Your task to perform on an android device: move an email to a new category in the gmail app Image 0: 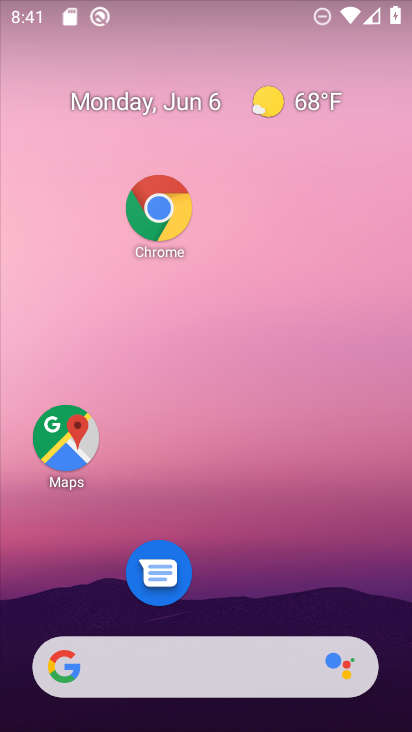
Step 0: drag from (284, 596) to (202, 111)
Your task to perform on an android device: move an email to a new category in the gmail app Image 1: 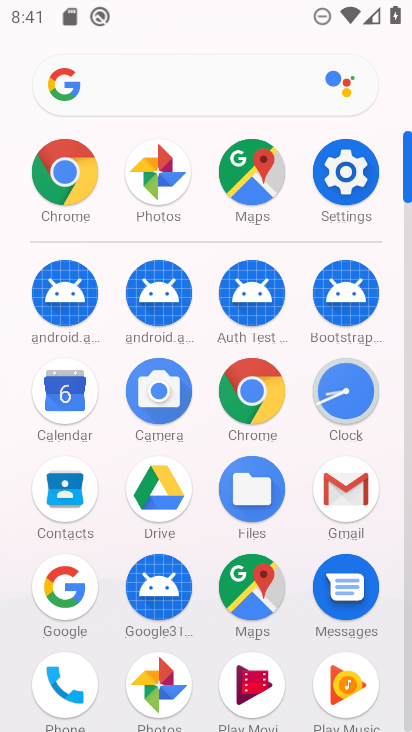
Step 1: click (355, 503)
Your task to perform on an android device: move an email to a new category in the gmail app Image 2: 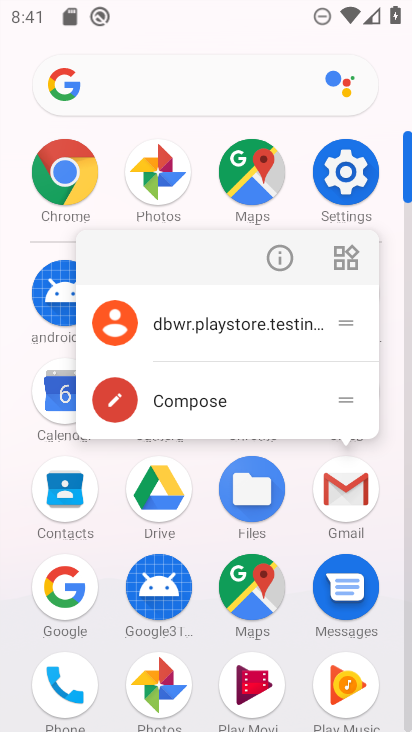
Step 2: click (240, 321)
Your task to perform on an android device: move an email to a new category in the gmail app Image 3: 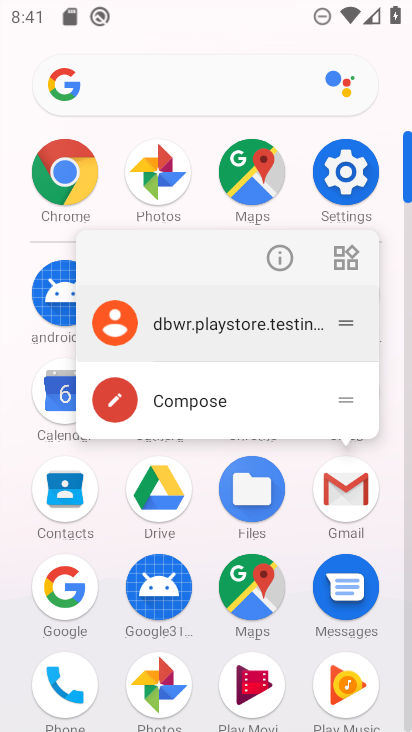
Step 3: click (240, 321)
Your task to perform on an android device: move an email to a new category in the gmail app Image 4: 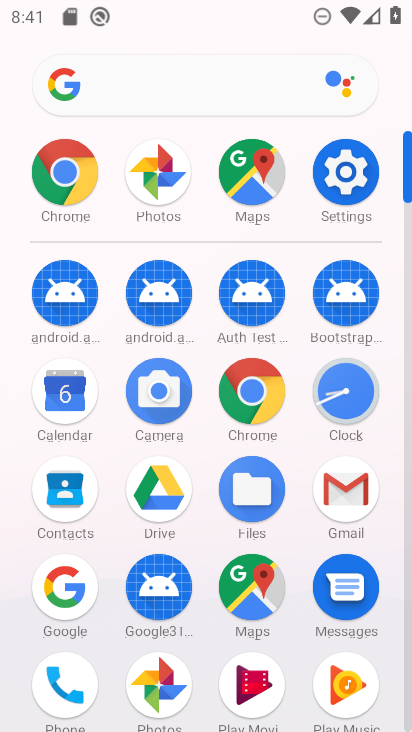
Step 4: click (242, 322)
Your task to perform on an android device: move an email to a new category in the gmail app Image 5: 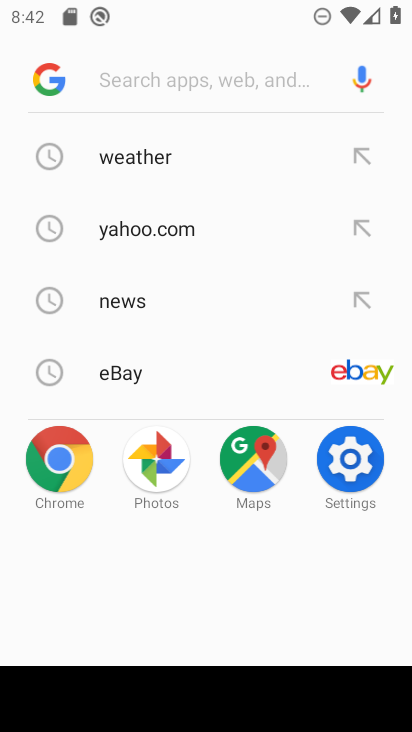
Step 5: press back button
Your task to perform on an android device: move an email to a new category in the gmail app Image 6: 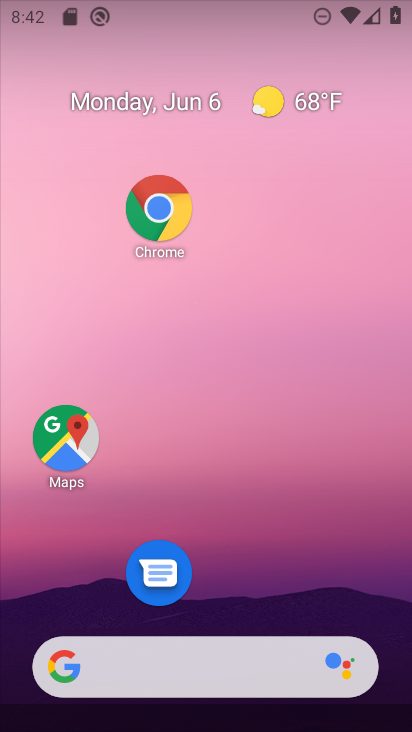
Step 6: press back button
Your task to perform on an android device: move an email to a new category in the gmail app Image 7: 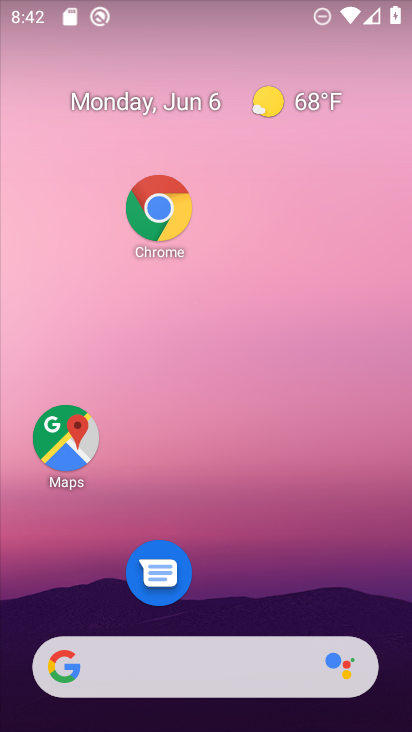
Step 7: drag from (274, 692) to (204, 19)
Your task to perform on an android device: move an email to a new category in the gmail app Image 8: 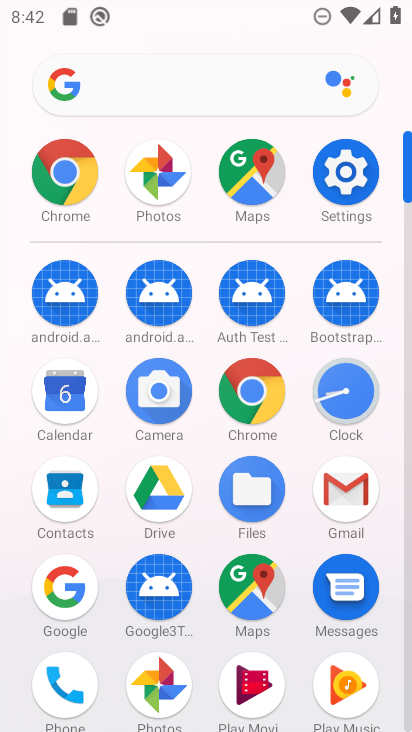
Step 8: click (335, 495)
Your task to perform on an android device: move an email to a new category in the gmail app Image 9: 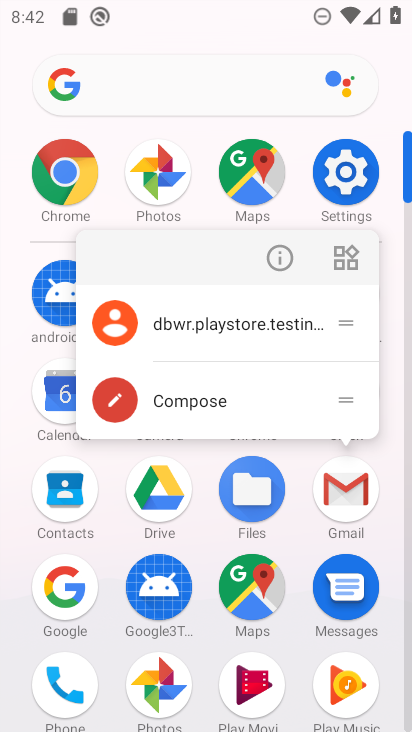
Step 9: click (218, 328)
Your task to perform on an android device: move an email to a new category in the gmail app Image 10: 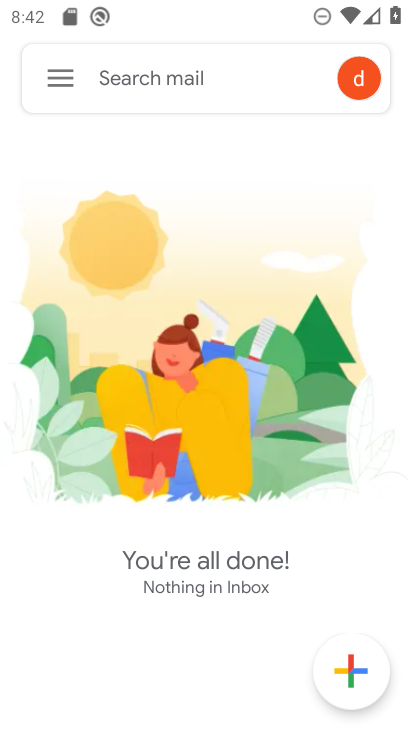
Step 10: click (73, 81)
Your task to perform on an android device: move an email to a new category in the gmail app Image 11: 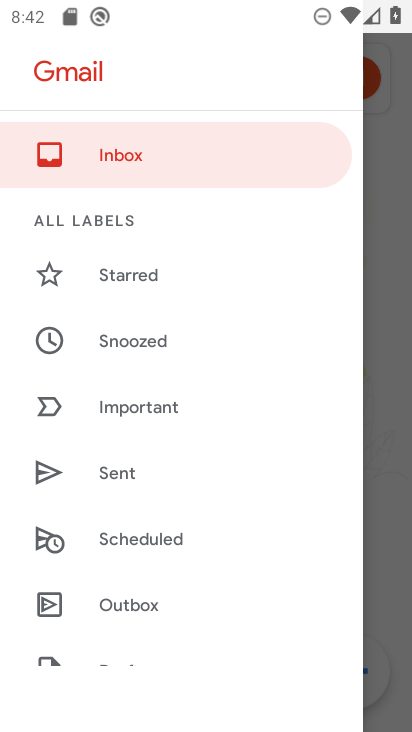
Step 11: drag from (177, 545) to (191, 62)
Your task to perform on an android device: move an email to a new category in the gmail app Image 12: 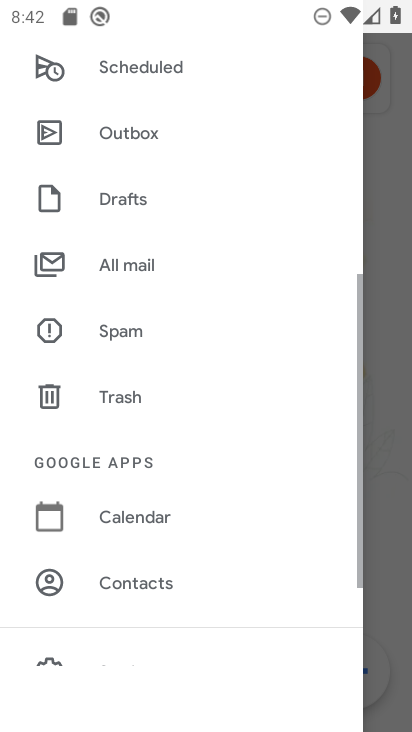
Step 12: drag from (183, 604) to (137, 226)
Your task to perform on an android device: move an email to a new category in the gmail app Image 13: 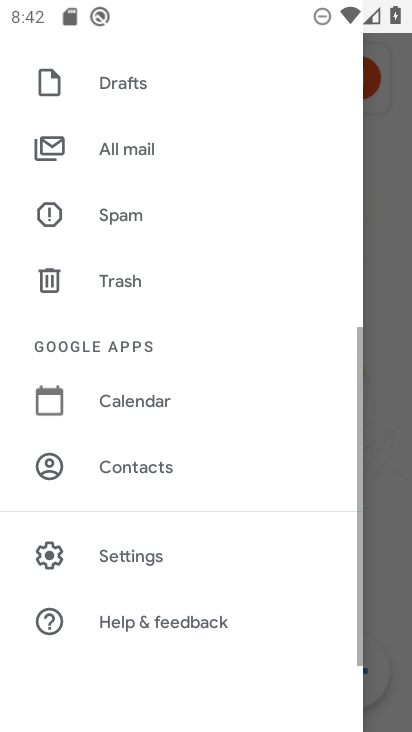
Step 13: click (118, 552)
Your task to perform on an android device: move an email to a new category in the gmail app Image 14: 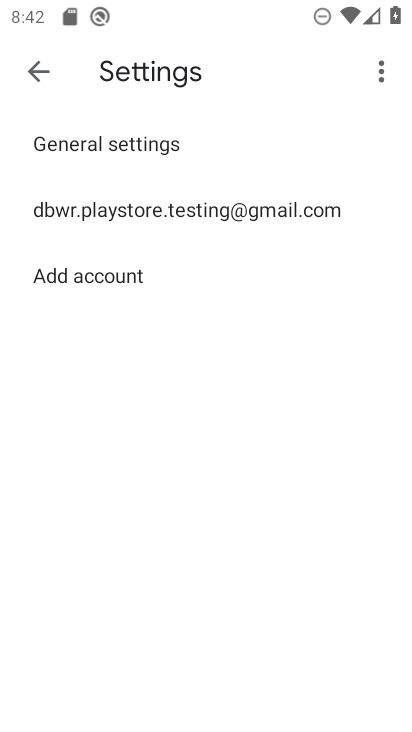
Step 14: click (37, 63)
Your task to perform on an android device: move an email to a new category in the gmail app Image 15: 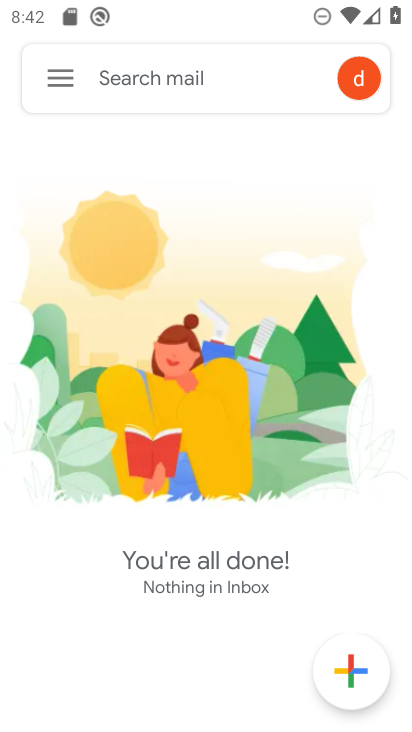
Step 15: click (62, 79)
Your task to perform on an android device: move an email to a new category in the gmail app Image 16: 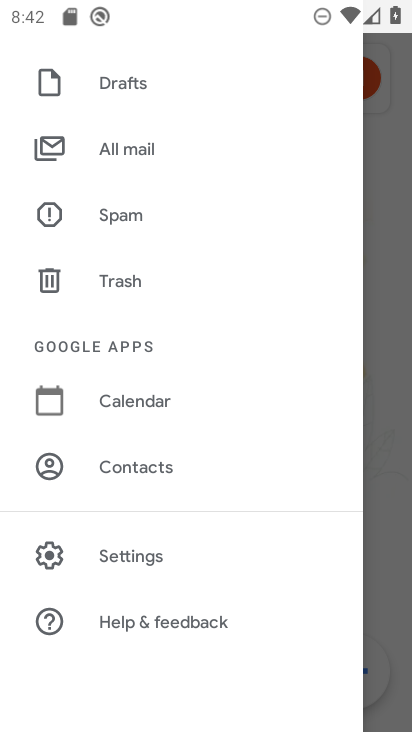
Step 16: click (120, 154)
Your task to perform on an android device: move an email to a new category in the gmail app Image 17: 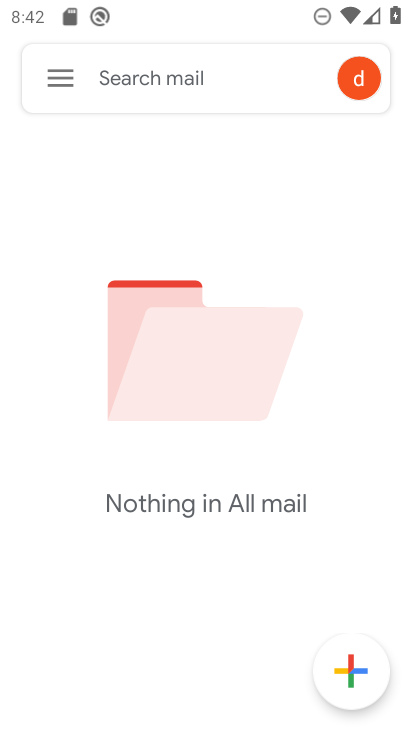
Step 17: task complete